Your task to perform on an android device: make emails show in primary in the gmail app Image 0: 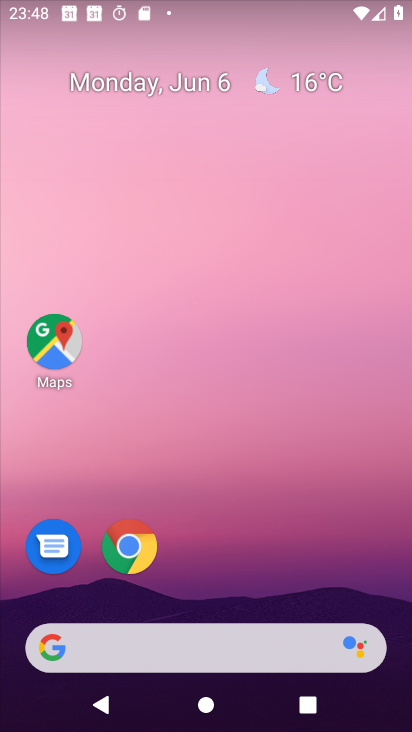
Step 0: drag from (223, 584) to (325, 8)
Your task to perform on an android device: make emails show in primary in the gmail app Image 1: 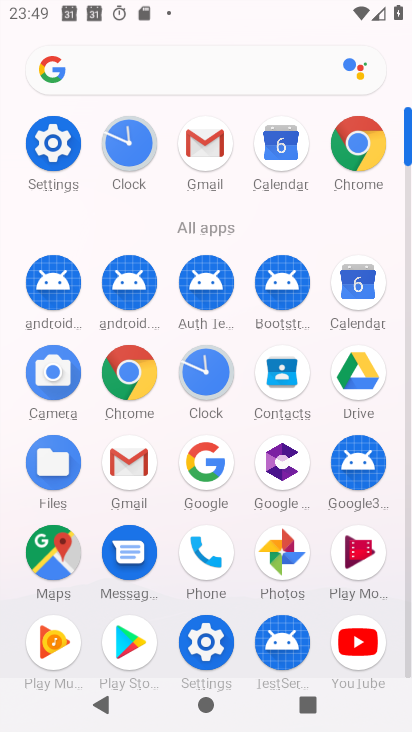
Step 1: click (133, 478)
Your task to perform on an android device: make emails show in primary in the gmail app Image 2: 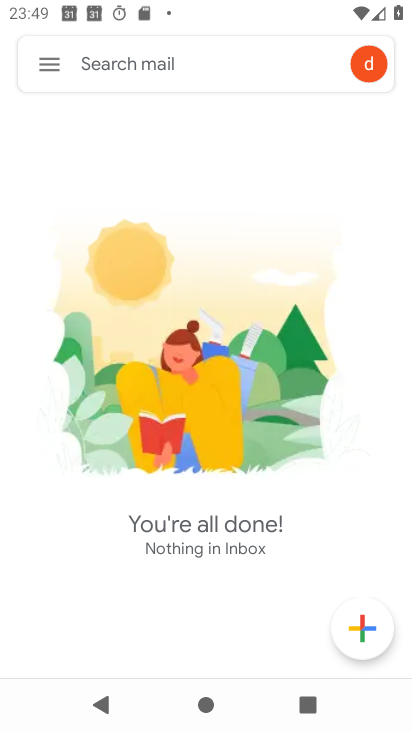
Step 2: click (47, 55)
Your task to perform on an android device: make emails show in primary in the gmail app Image 3: 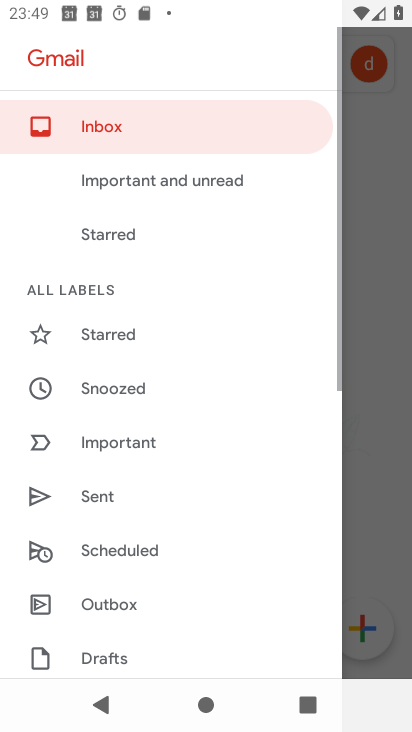
Step 3: drag from (128, 519) to (212, 196)
Your task to perform on an android device: make emails show in primary in the gmail app Image 4: 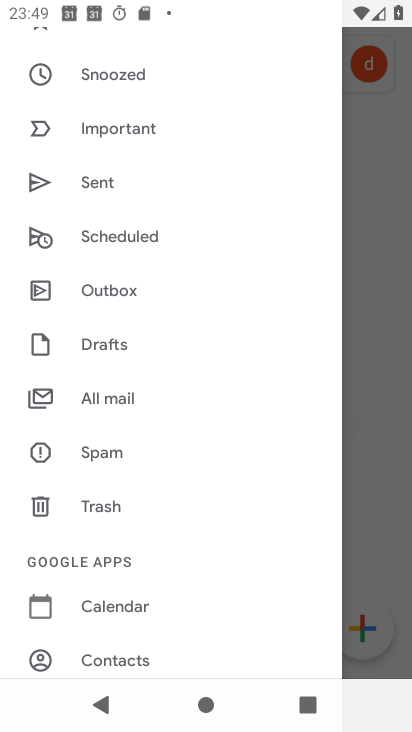
Step 4: drag from (149, 526) to (230, 185)
Your task to perform on an android device: make emails show in primary in the gmail app Image 5: 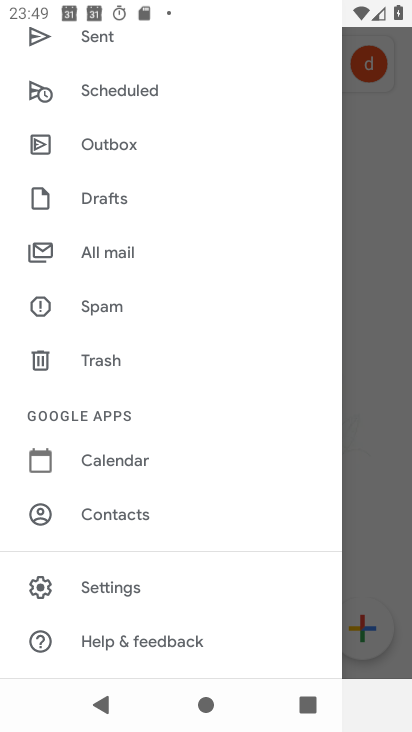
Step 5: click (123, 586)
Your task to perform on an android device: make emails show in primary in the gmail app Image 6: 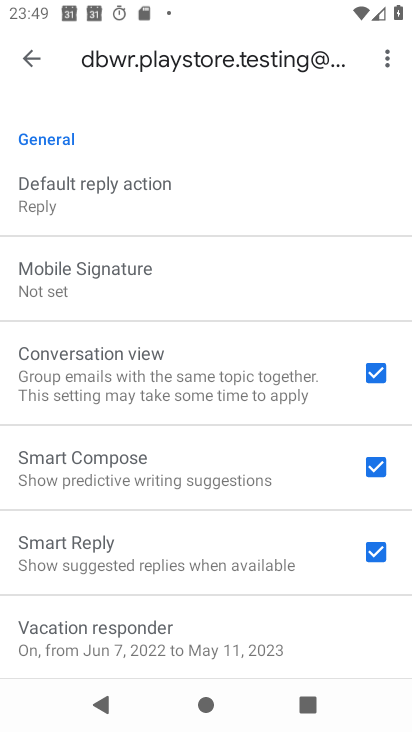
Step 6: drag from (153, 250) to (153, 693)
Your task to perform on an android device: make emails show in primary in the gmail app Image 7: 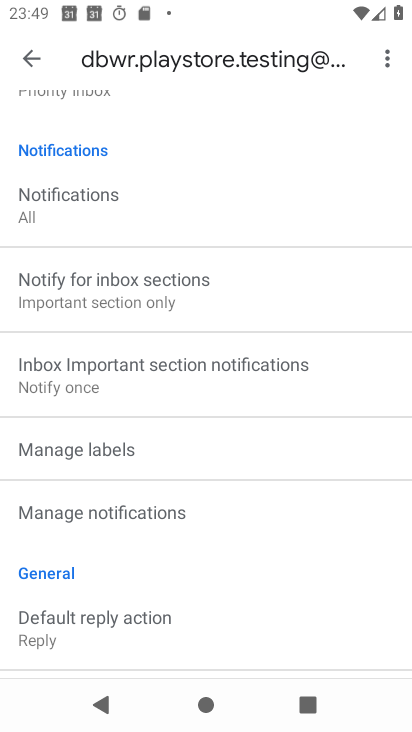
Step 7: drag from (180, 297) to (172, 657)
Your task to perform on an android device: make emails show in primary in the gmail app Image 8: 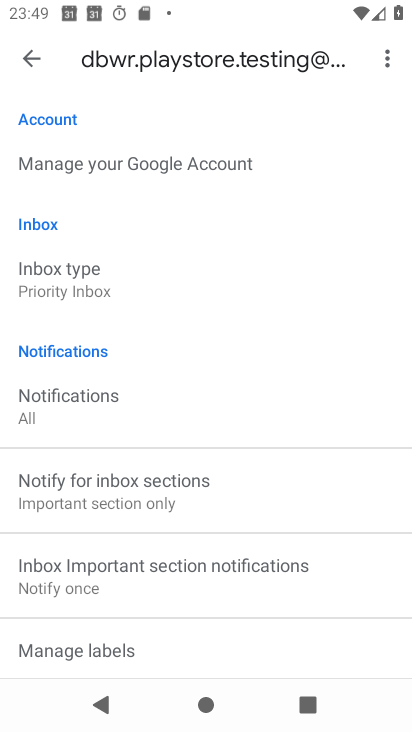
Step 8: click (105, 269)
Your task to perform on an android device: make emails show in primary in the gmail app Image 9: 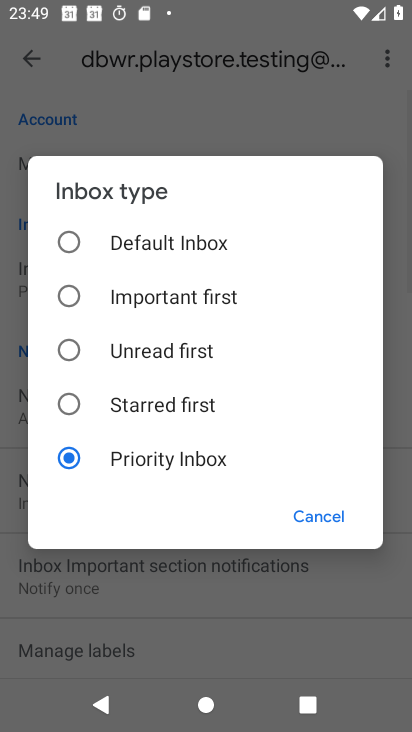
Step 9: click (114, 236)
Your task to perform on an android device: make emails show in primary in the gmail app Image 10: 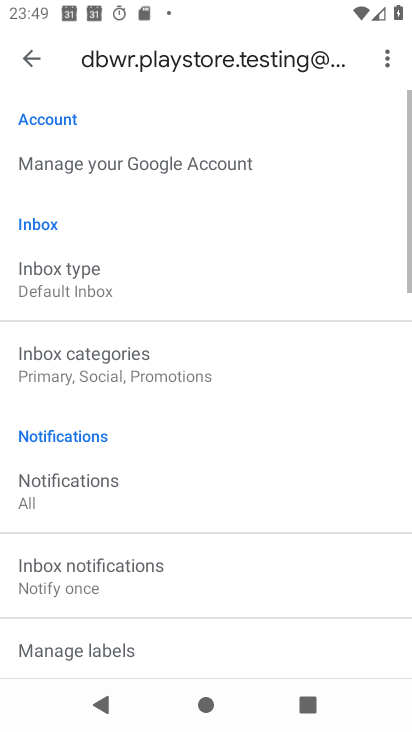
Step 10: click (71, 386)
Your task to perform on an android device: make emails show in primary in the gmail app Image 11: 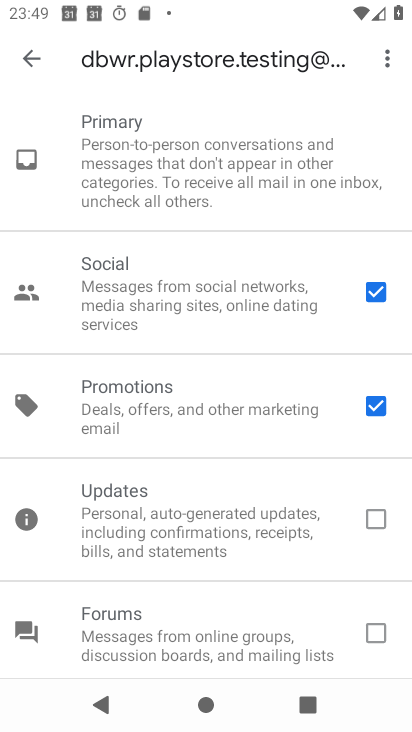
Step 11: click (374, 284)
Your task to perform on an android device: make emails show in primary in the gmail app Image 12: 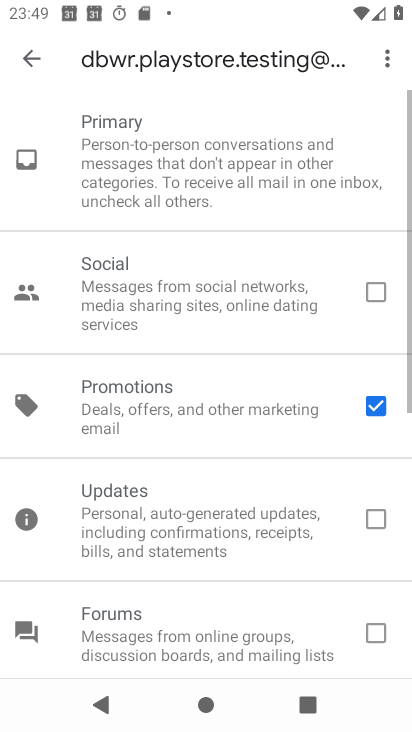
Step 12: click (366, 397)
Your task to perform on an android device: make emails show in primary in the gmail app Image 13: 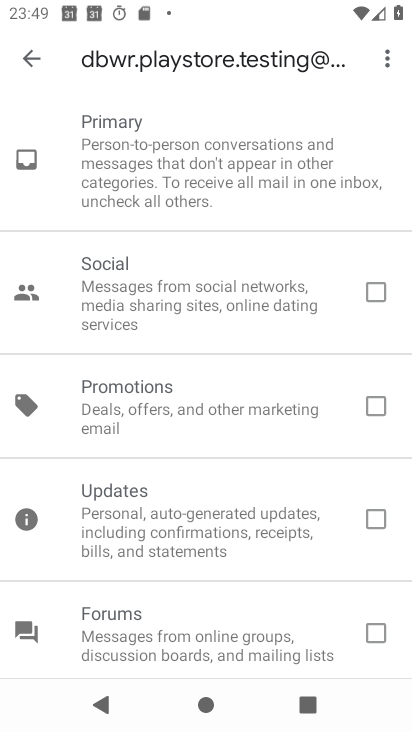
Step 13: task complete